Your task to perform on an android device: Open eBay Image 0: 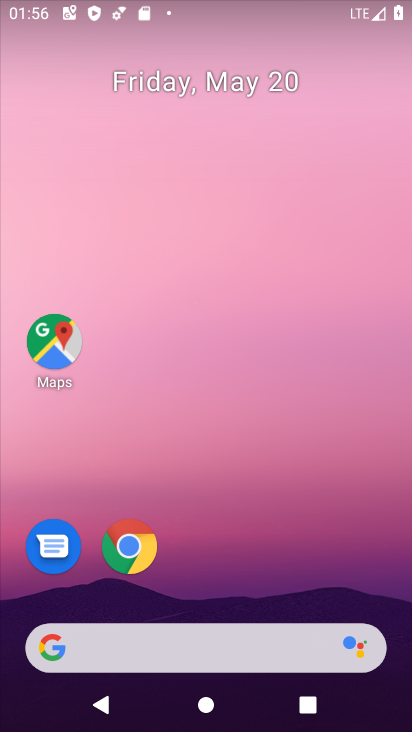
Step 0: drag from (207, 599) to (84, 41)
Your task to perform on an android device: Open eBay Image 1: 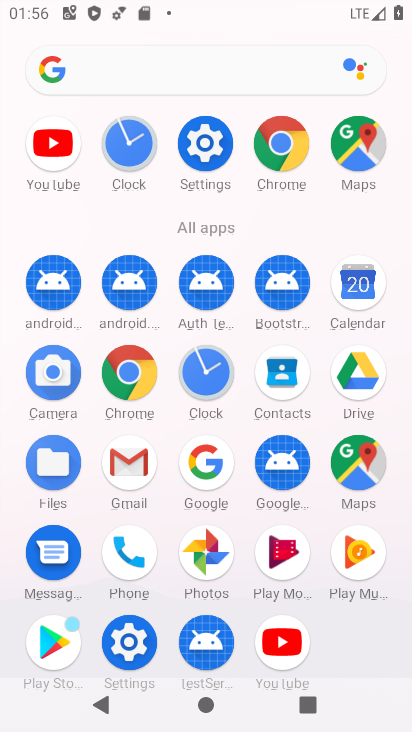
Step 1: click (183, 465)
Your task to perform on an android device: Open eBay Image 2: 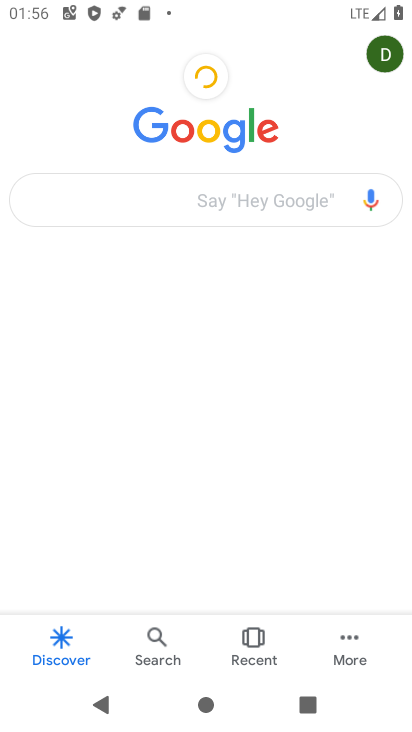
Step 2: click (211, 181)
Your task to perform on an android device: Open eBay Image 3: 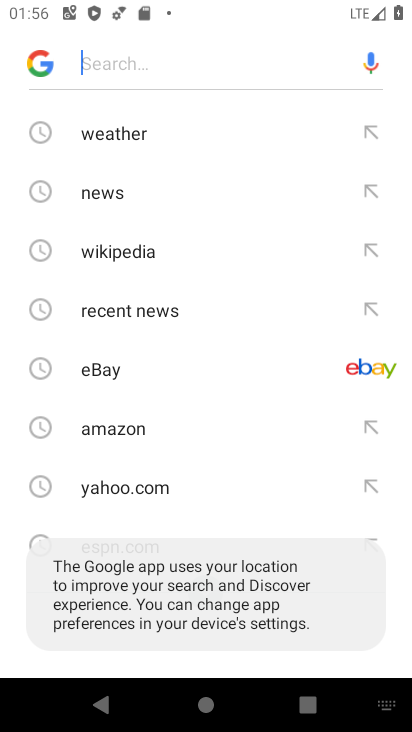
Step 3: click (92, 372)
Your task to perform on an android device: Open eBay Image 4: 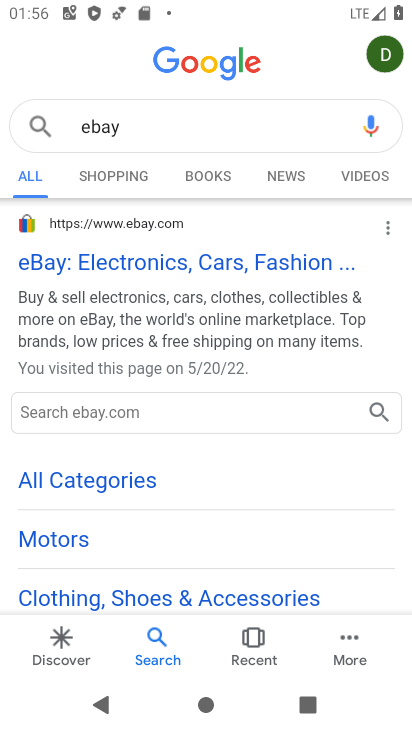
Step 4: click (100, 272)
Your task to perform on an android device: Open eBay Image 5: 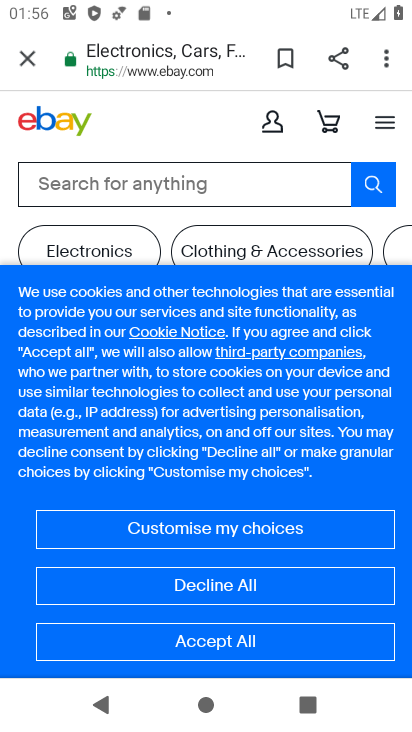
Step 5: task complete